Your task to perform on an android device: turn off javascript in the chrome app Image 0: 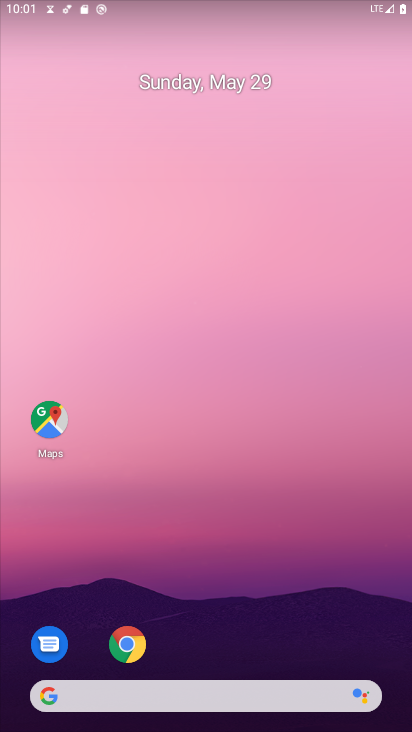
Step 0: click (129, 659)
Your task to perform on an android device: turn off javascript in the chrome app Image 1: 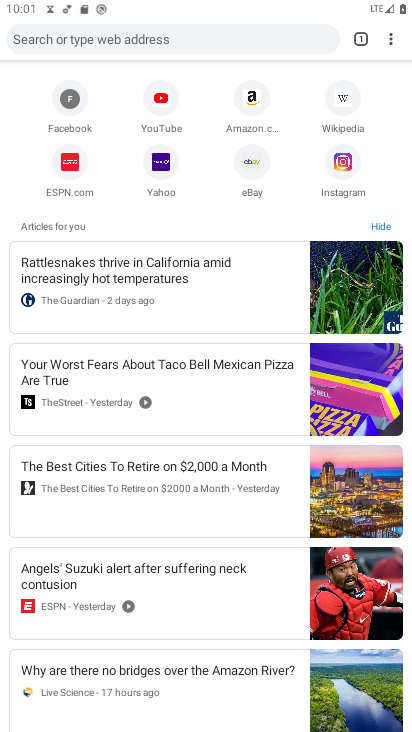
Step 1: click (393, 33)
Your task to perform on an android device: turn off javascript in the chrome app Image 2: 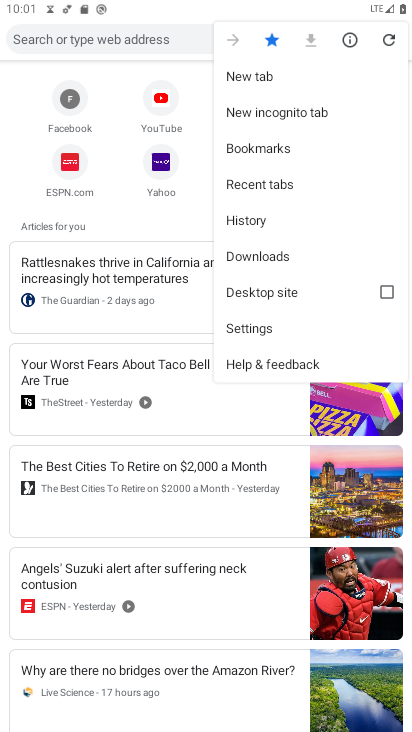
Step 2: click (257, 325)
Your task to perform on an android device: turn off javascript in the chrome app Image 3: 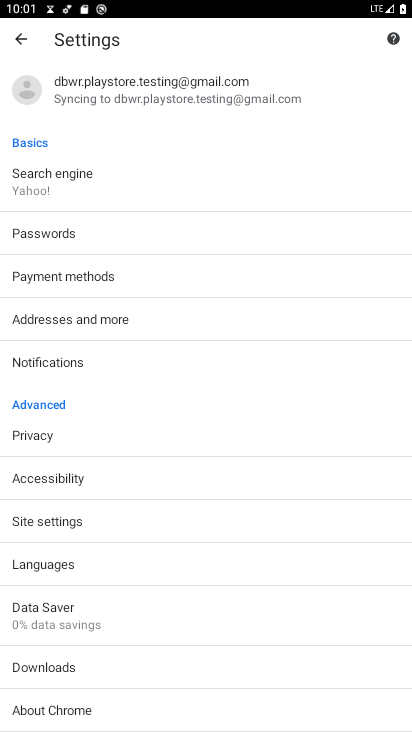
Step 3: click (65, 528)
Your task to perform on an android device: turn off javascript in the chrome app Image 4: 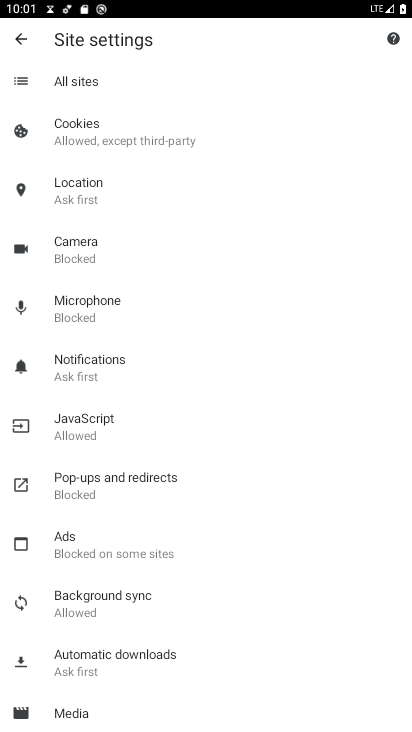
Step 4: click (87, 441)
Your task to perform on an android device: turn off javascript in the chrome app Image 5: 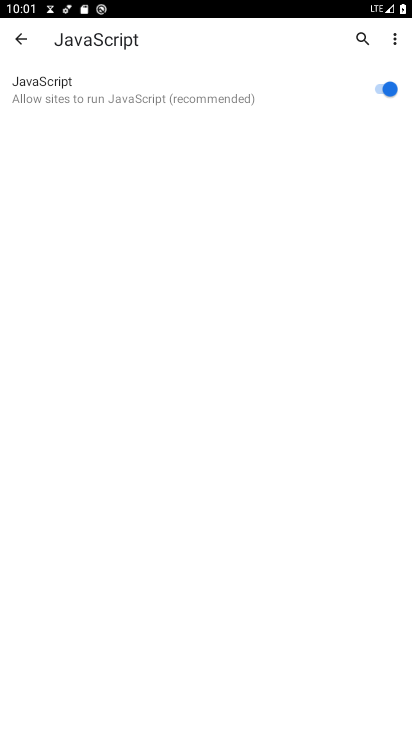
Step 5: click (389, 87)
Your task to perform on an android device: turn off javascript in the chrome app Image 6: 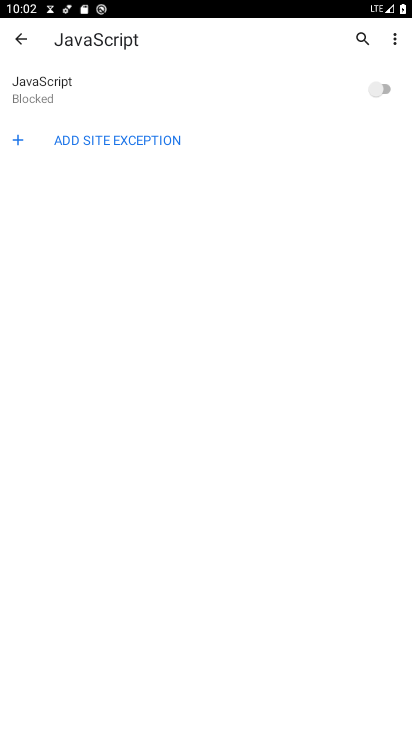
Step 6: task complete